Your task to perform on an android device: toggle priority inbox in the gmail app Image 0: 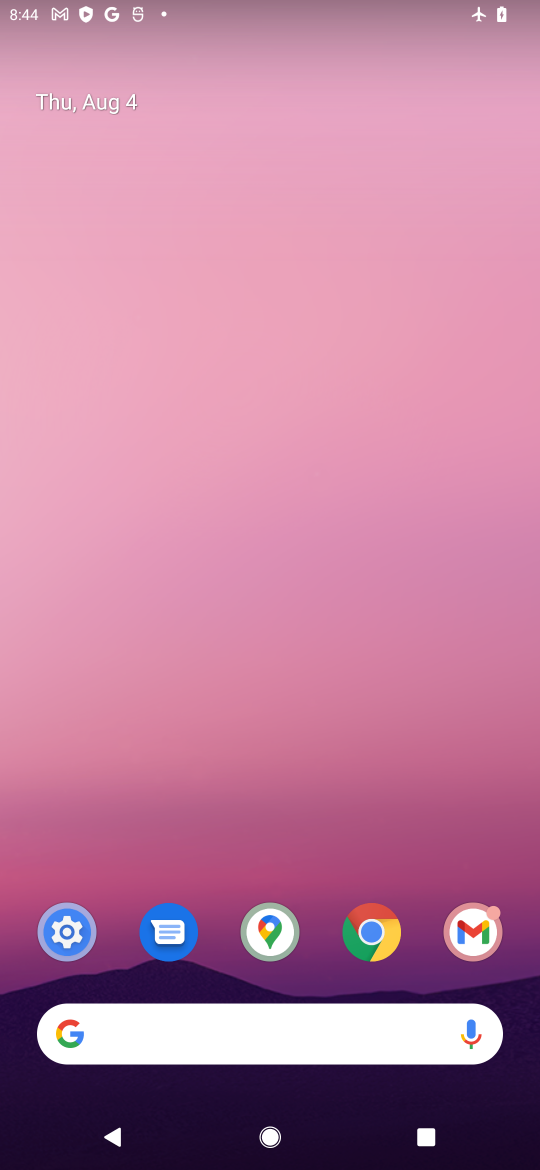
Step 0: click (248, 991)
Your task to perform on an android device: toggle priority inbox in the gmail app Image 1: 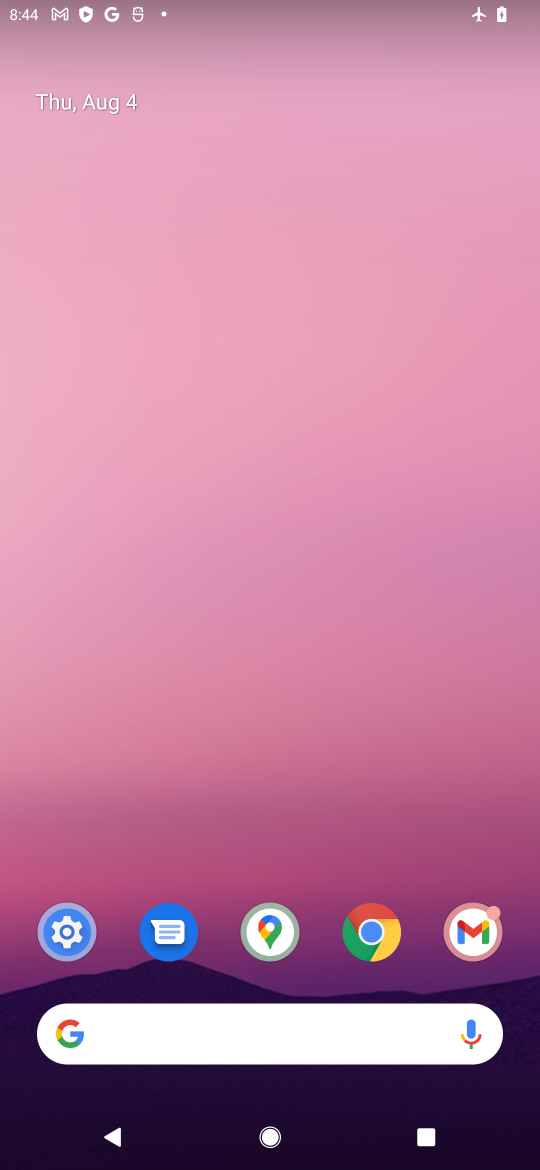
Step 1: click (458, 932)
Your task to perform on an android device: toggle priority inbox in the gmail app Image 2: 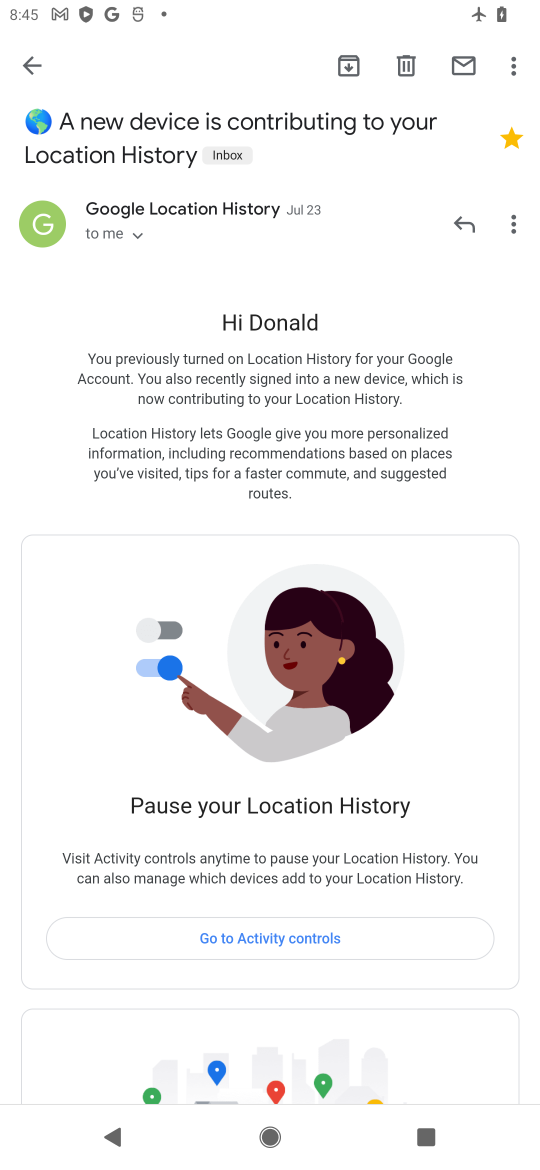
Step 2: click (28, 64)
Your task to perform on an android device: toggle priority inbox in the gmail app Image 3: 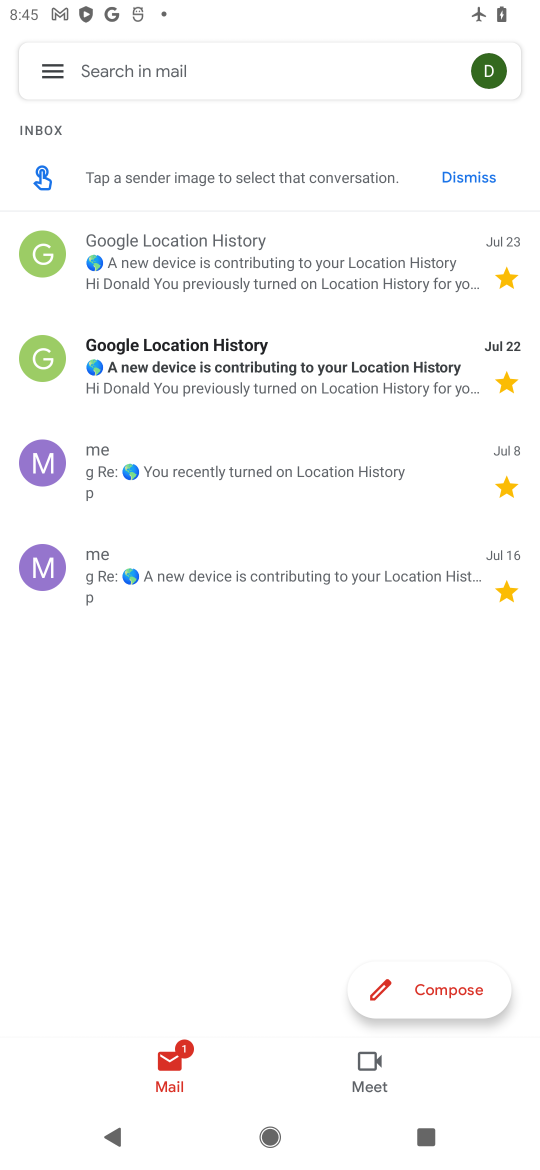
Step 3: click (45, 76)
Your task to perform on an android device: toggle priority inbox in the gmail app Image 4: 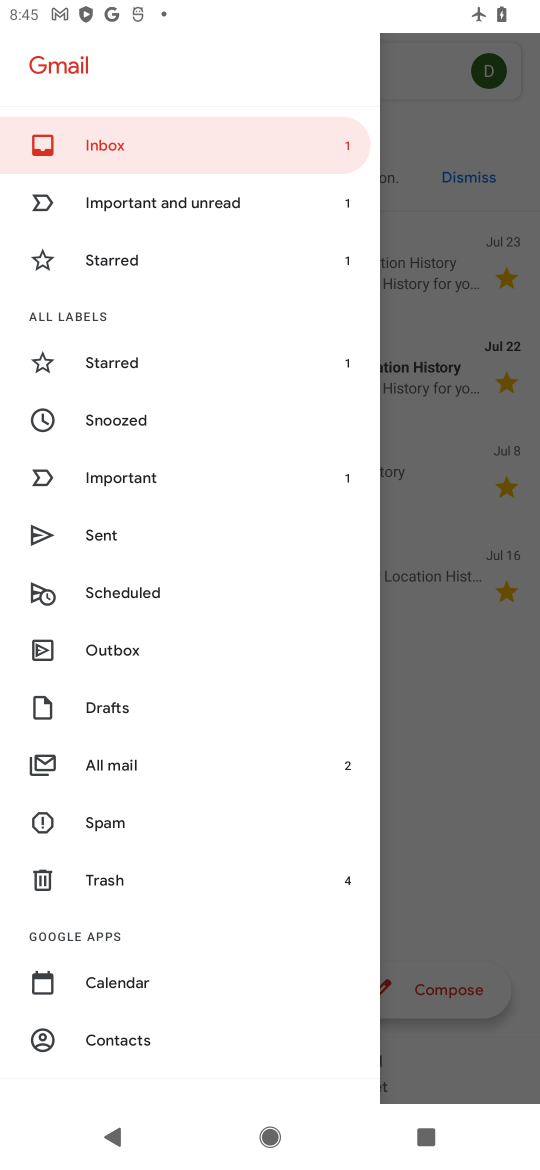
Step 4: drag from (140, 909) to (148, 538)
Your task to perform on an android device: toggle priority inbox in the gmail app Image 5: 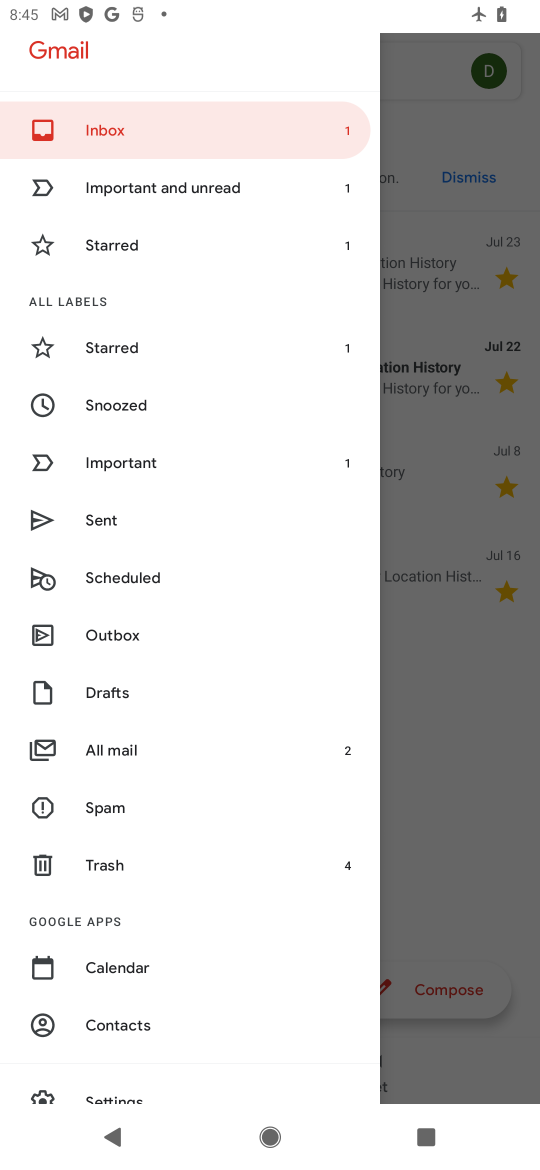
Step 5: drag from (136, 1010) to (167, 537)
Your task to perform on an android device: toggle priority inbox in the gmail app Image 6: 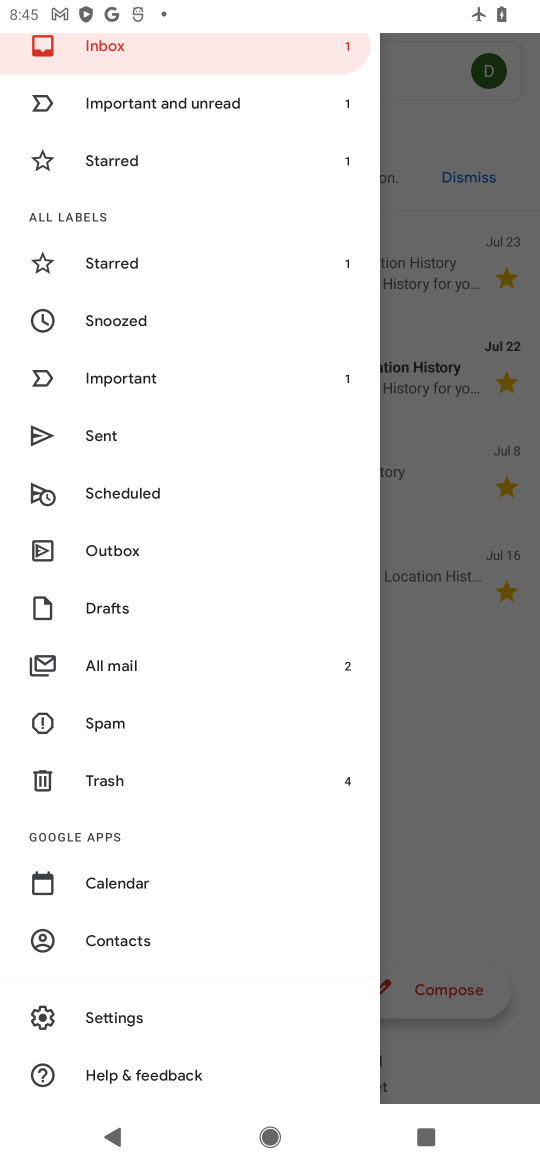
Step 6: click (124, 1012)
Your task to perform on an android device: toggle priority inbox in the gmail app Image 7: 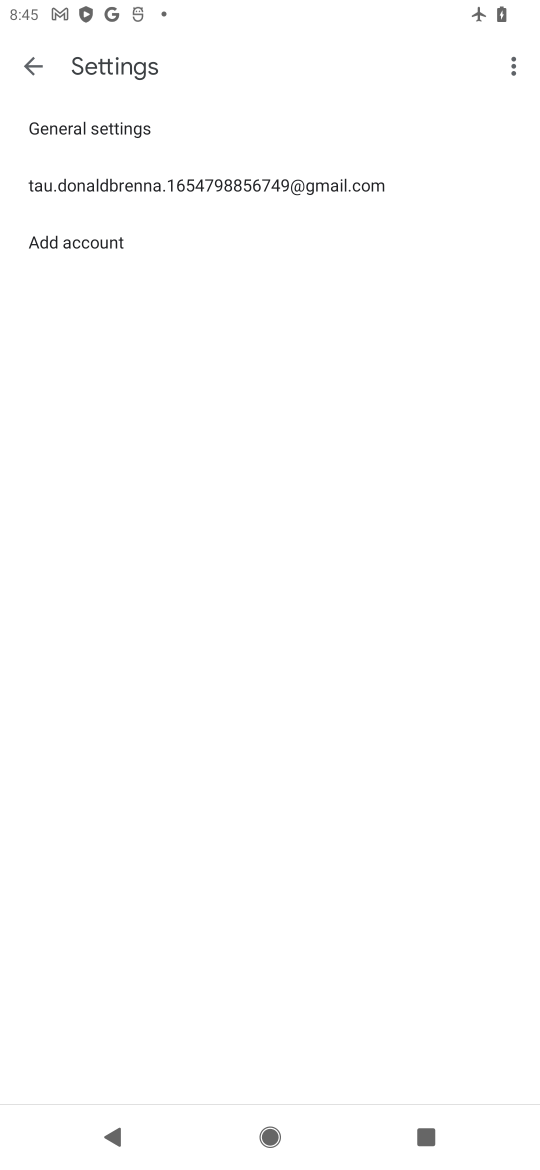
Step 7: click (138, 195)
Your task to perform on an android device: toggle priority inbox in the gmail app Image 8: 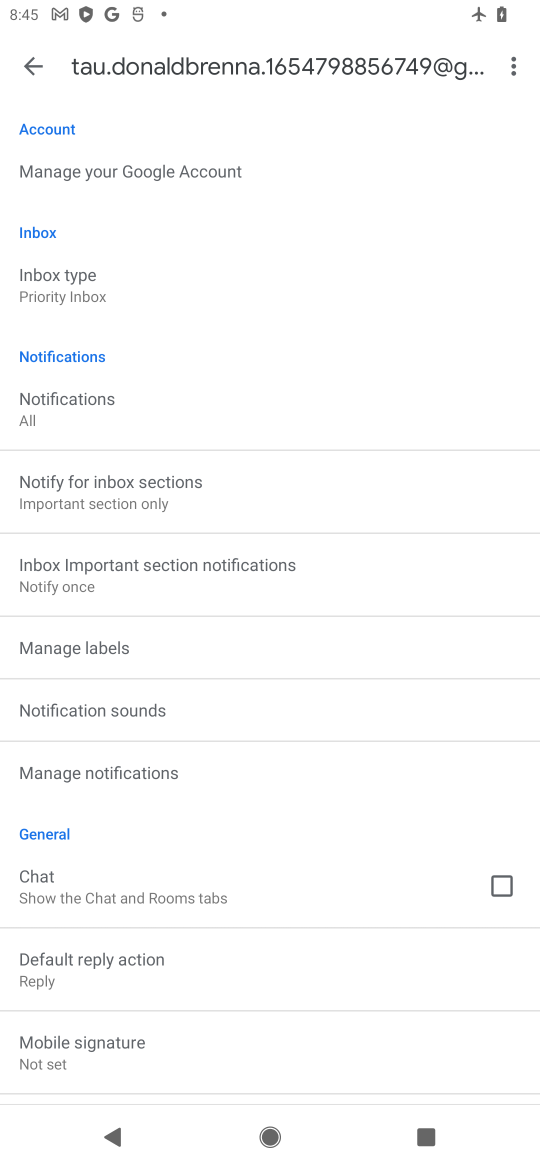
Step 8: click (46, 290)
Your task to perform on an android device: toggle priority inbox in the gmail app Image 9: 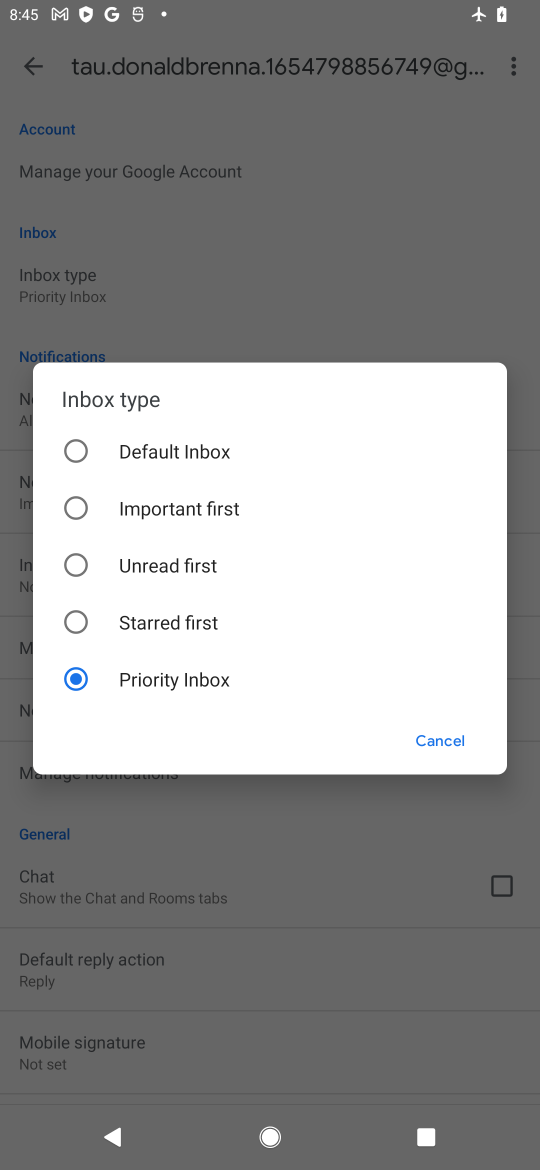
Step 9: click (82, 448)
Your task to perform on an android device: toggle priority inbox in the gmail app Image 10: 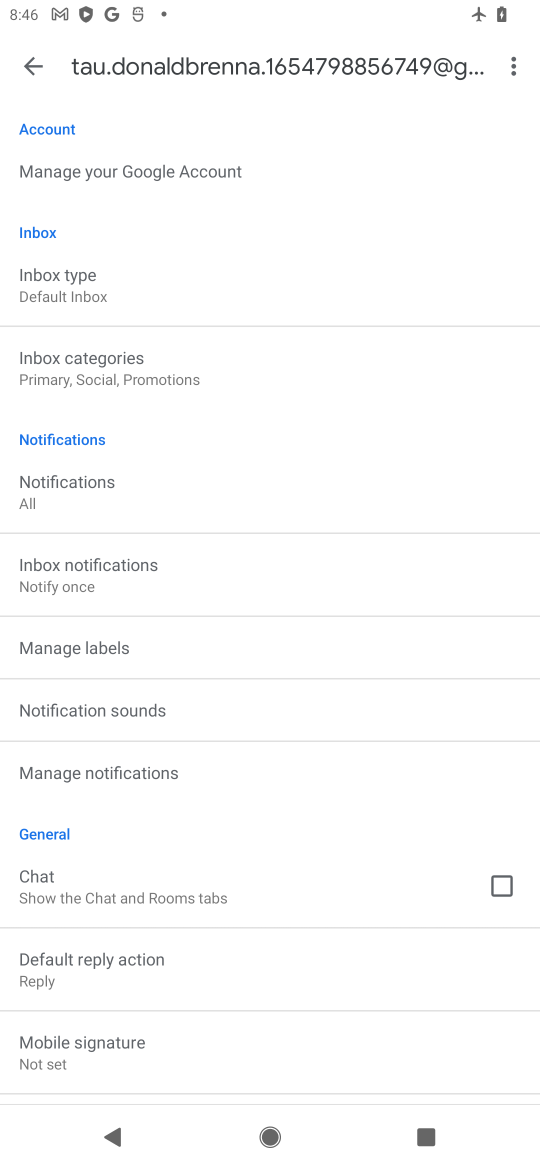
Step 10: task complete